Your task to perform on an android device: Open Yahoo.com Image 0: 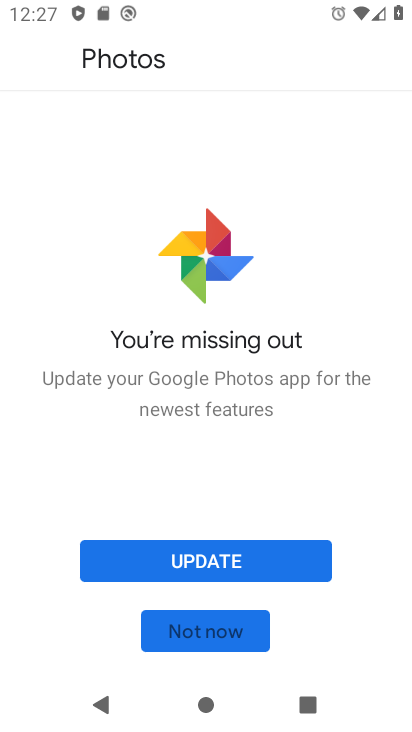
Step 0: press home button
Your task to perform on an android device: Open Yahoo.com Image 1: 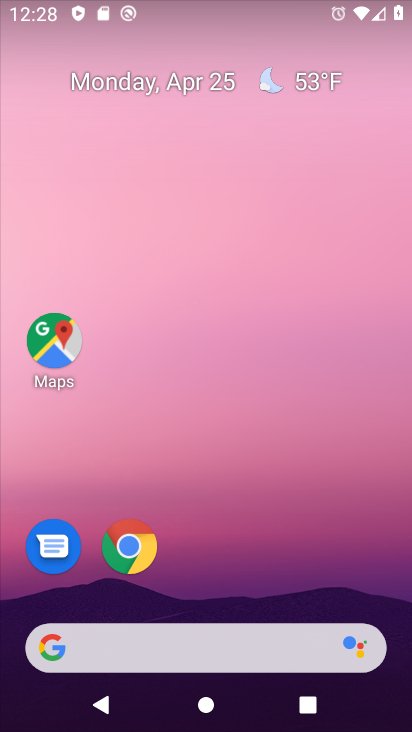
Step 1: click (144, 551)
Your task to perform on an android device: Open Yahoo.com Image 2: 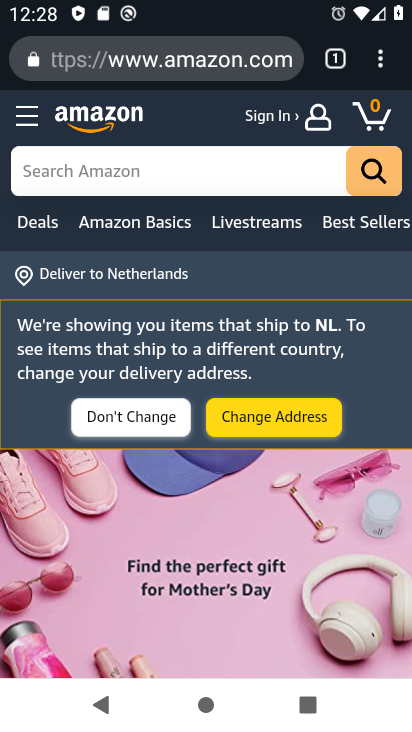
Step 2: click (331, 56)
Your task to perform on an android device: Open Yahoo.com Image 3: 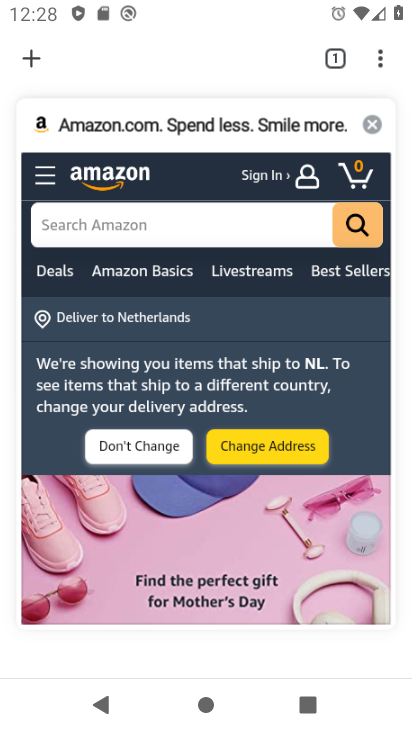
Step 3: click (20, 58)
Your task to perform on an android device: Open Yahoo.com Image 4: 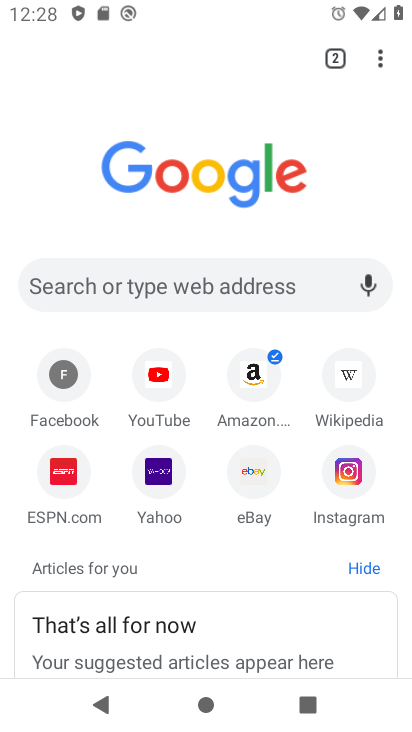
Step 4: click (157, 477)
Your task to perform on an android device: Open Yahoo.com Image 5: 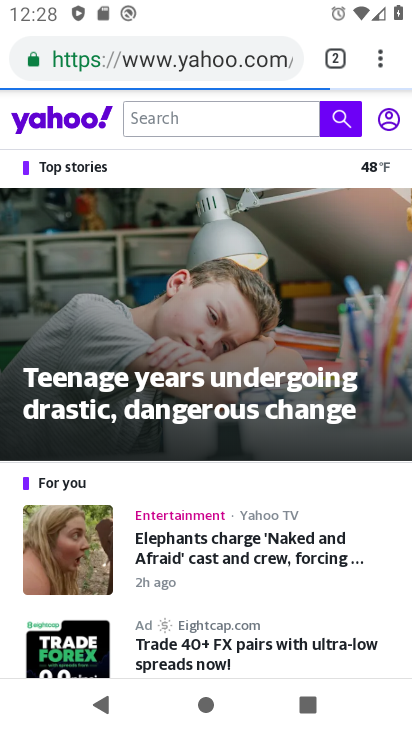
Step 5: task complete